Your task to perform on an android device: Open internet settings Image 0: 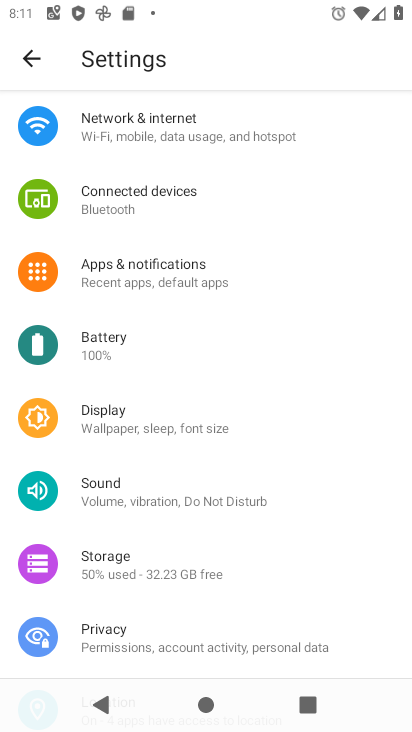
Step 0: click (212, 122)
Your task to perform on an android device: Open internet settings Image 1: 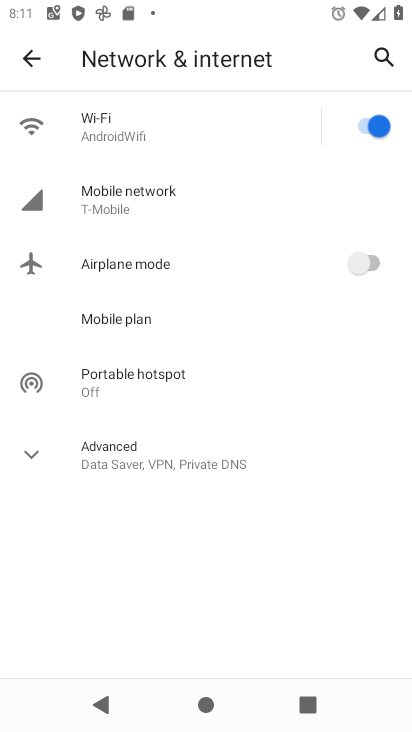
Step 1: task complete